Your task to perform on an android device: Open Reddit.com Image 0: 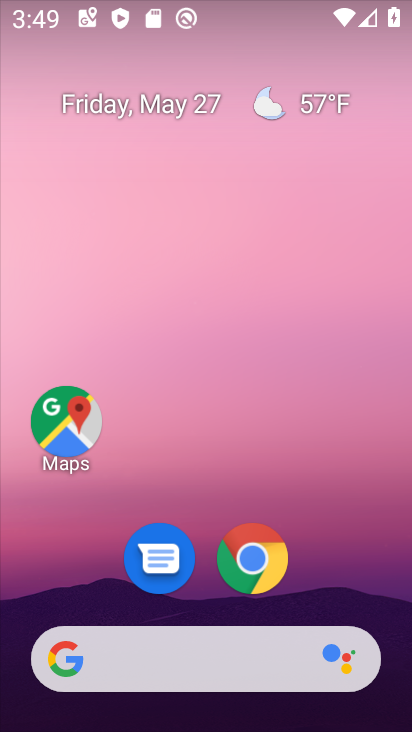
Step 0: drag from (380, 592) to (285, 235)
Your task to perform on an android device: Open Reddit.com Image 1: 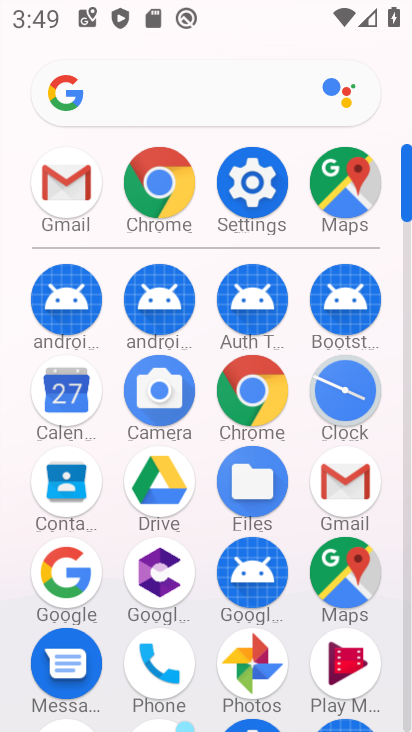
Step 1: click (140, 100)
Your task to perform on an android device: Open Reddit.com Image 2: 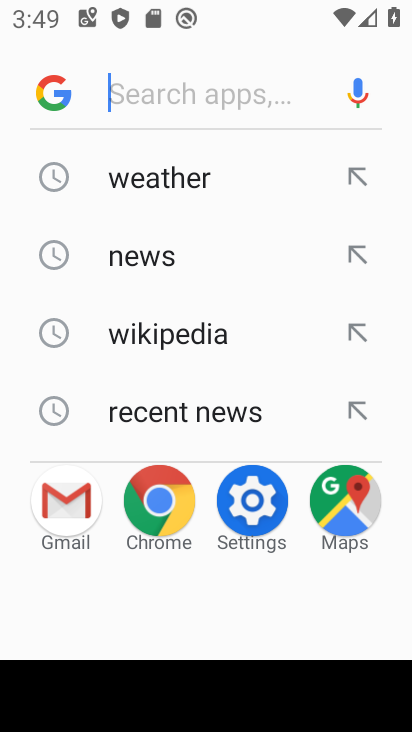
Step 2: type "redditt"
Your task to perform on an android device: Open Reddit.com Image 3: 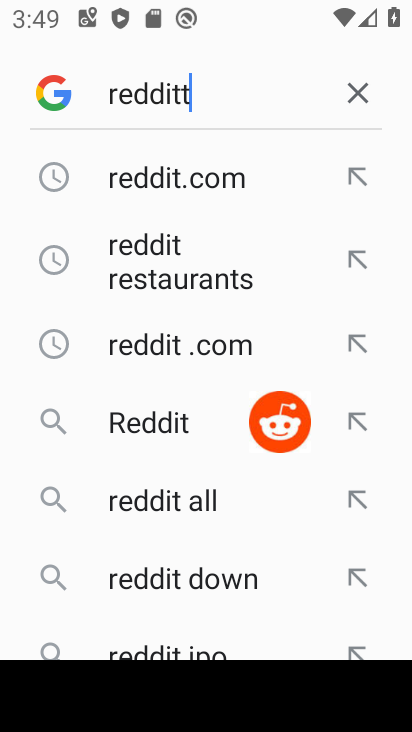
Step 3: click (248, 171)
Your task to perform on an android device: Open Reddit.com Image 4: 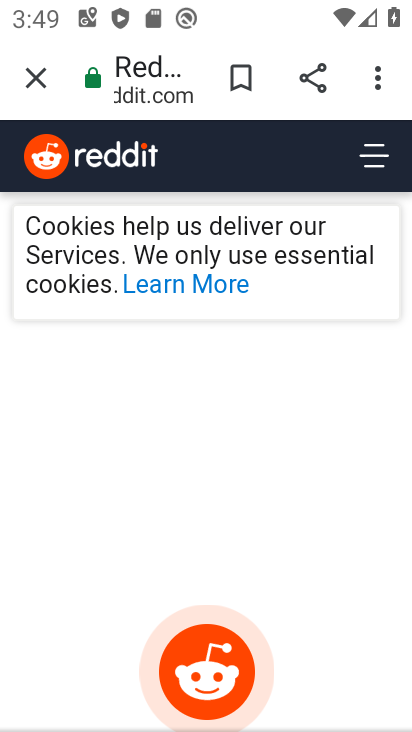
Step 4: task complete